Your task to perform on an android device: check storage Image 0: 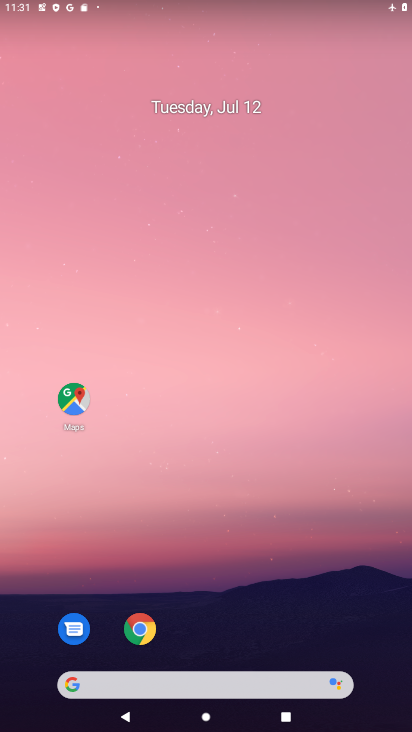
Step 0: drag from (219, 593) to (215, 200)
Your task to perform on an android device: check storage Image 1: 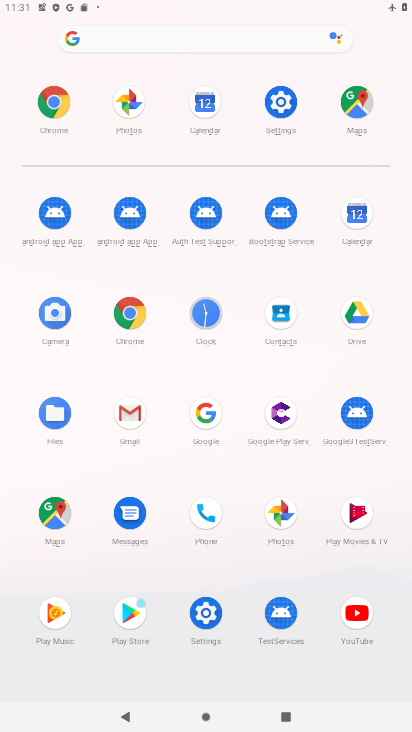
Step 1: click (284, 100)
Your task to perform on an android device: check storage Image 2: 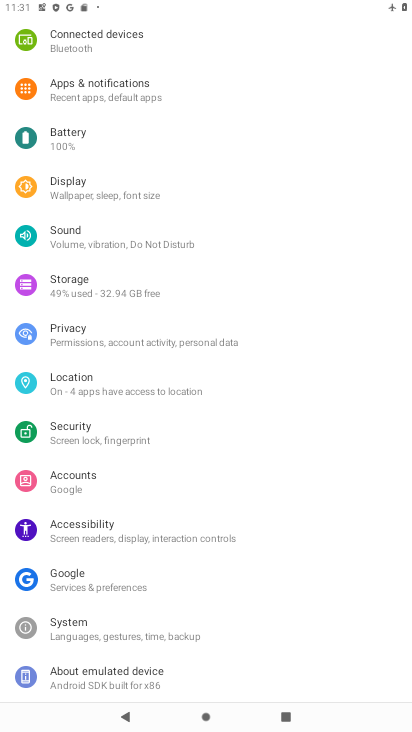
Step 2: click (79, 282)
Your task to perform on an android device: check storage Image 3: 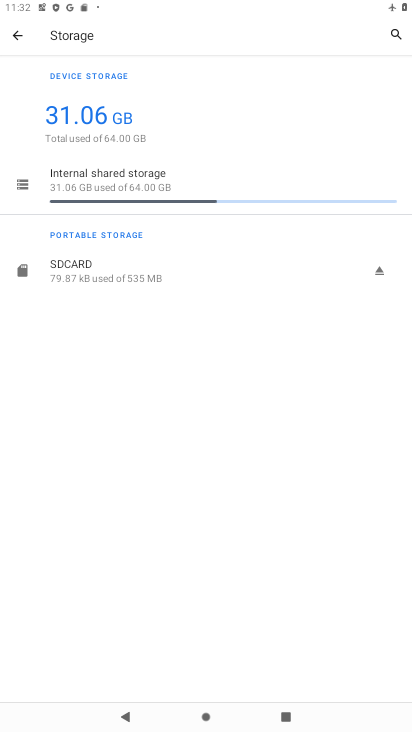
Step 3: task complete